Your task to perform on an android device: clear all cookies in the chrome app Image 0: 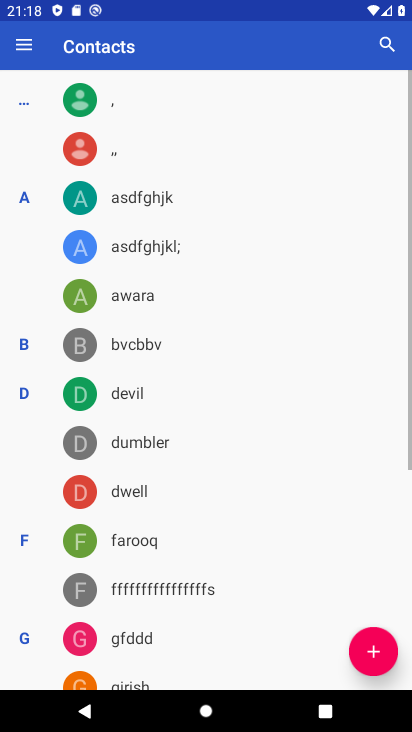
Step 0: press home button
Your task to perform on an android device: clear all cookies in the chrome app Image 1: 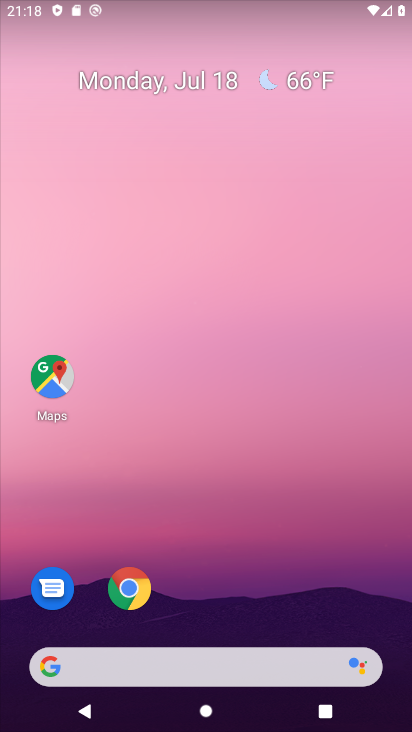
Step 1: click (125, 585)
Your task to perform on an android device: clear all cookies in the chrome app Image 2: 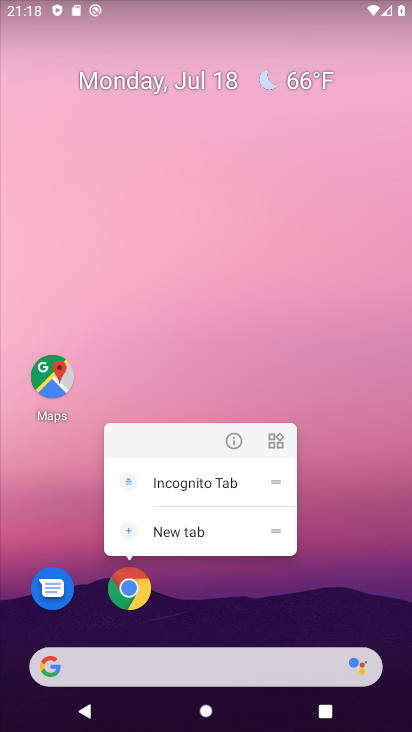
Step 2: click (134, 588)
Your task to perform on an android device: clear all cookies in the chrome app Image 3: 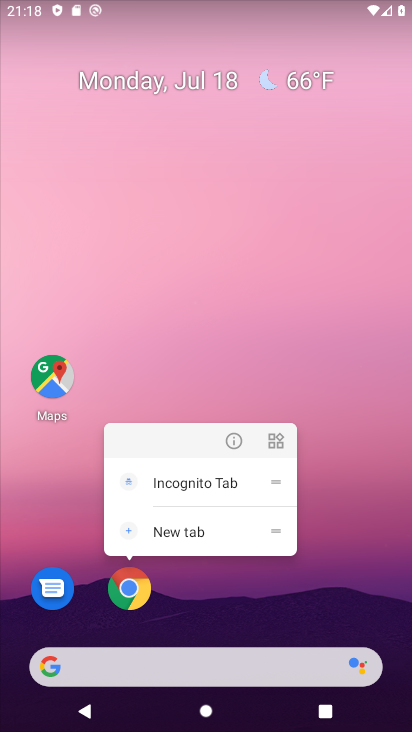
Step 3: click (134, 586)
Your task to perform on an android device: clear all cookies in the chrome app Image 4: 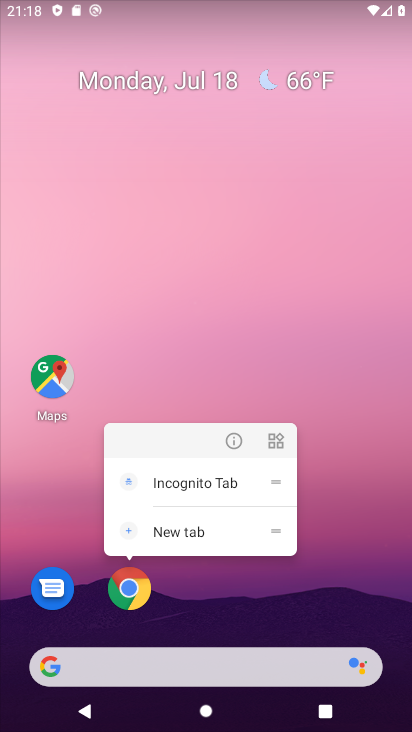
Step 4: click (144, 597)
Your task to perform on an android device: clear all cookies in the chrome app Image 5: 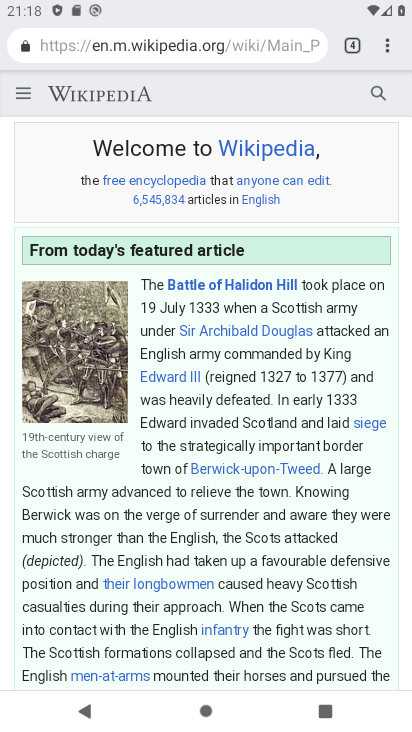
Step 5: drag from (386, 48) to (284, 551)
Your task to perform on an android device: clear all cookies in the chrome app Image 6: 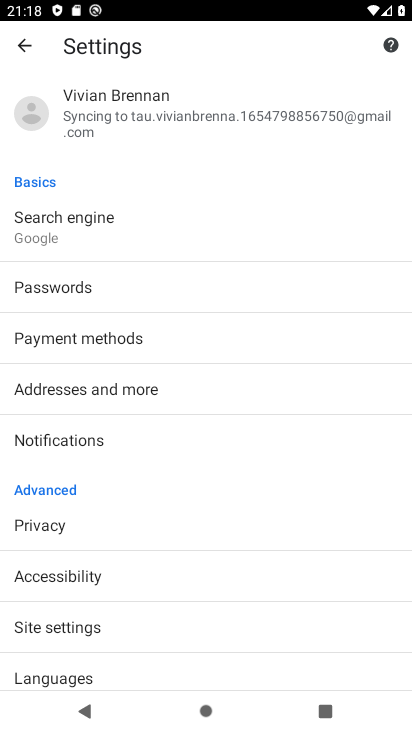
Step 6: click (46, 516)
Your task to perform on an android device: clear all cookies in the chrome app Image 7: 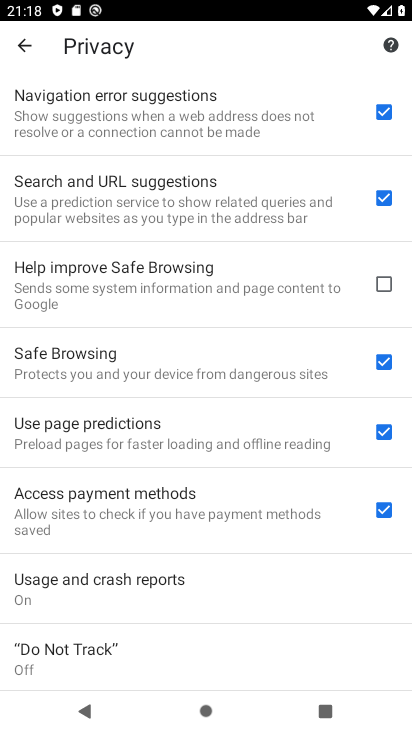
Step 7: drag from (201, 586) to (274, 242)
Your task to perform on an android device: clear all cookies in the chrome app Image 8: 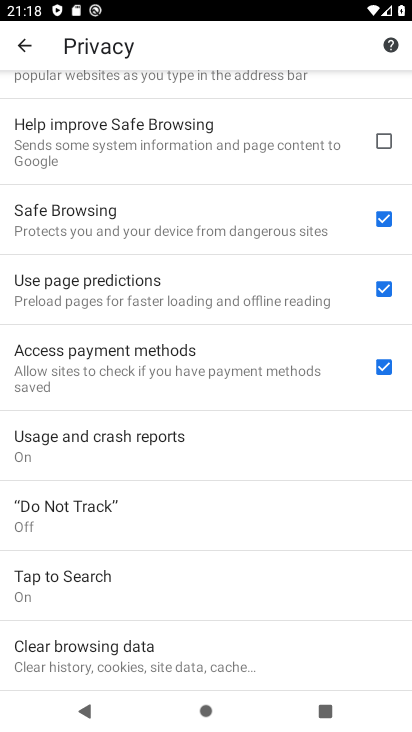
Step 8: drag from (229, 627) to (272, 178)
Your task to perform on an android device: clear all cookies in the chrome app Image 9: 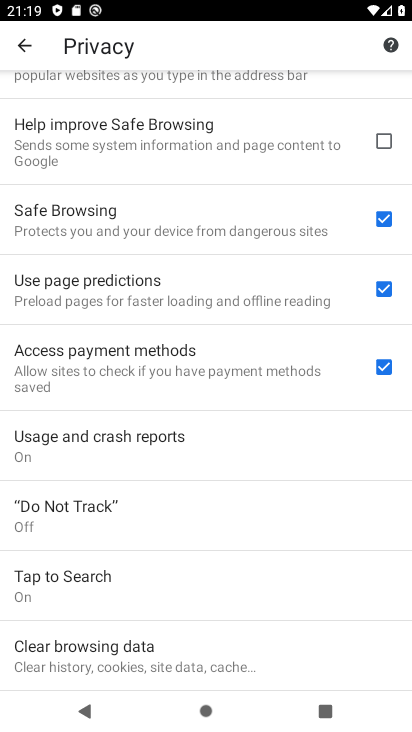
Step 9: click (161, 655)
Your task to perform on an android device: clear all cookies in the chrome app Image 10: 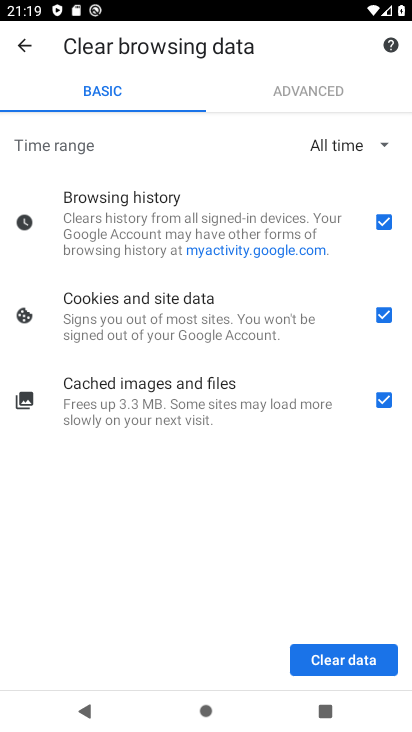
Step 10: click (383, 400)
Your task to perform on an android device: clear all cookies in the chrome app Image 11: 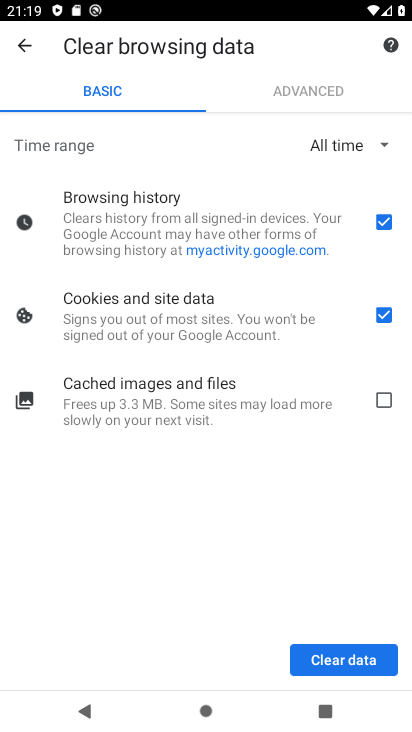
Step 11: click (388, 219)
Your task to perform on an android device: clear all cookies in the chrome app Image 12: 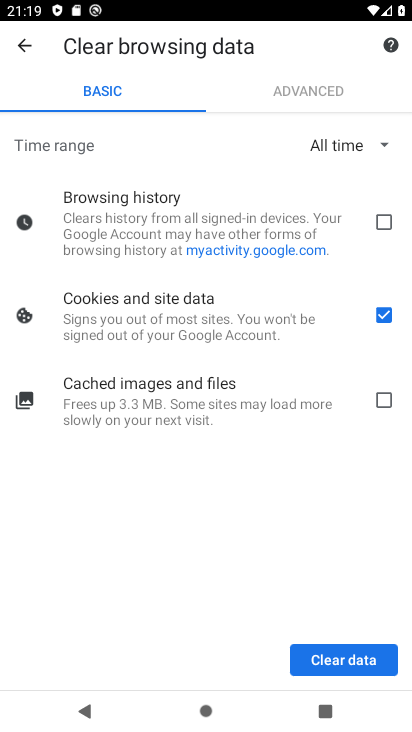
Step 12: click (354, 658)
Your task to perform on an android device: clear all cookies in the chrome app Image 13: 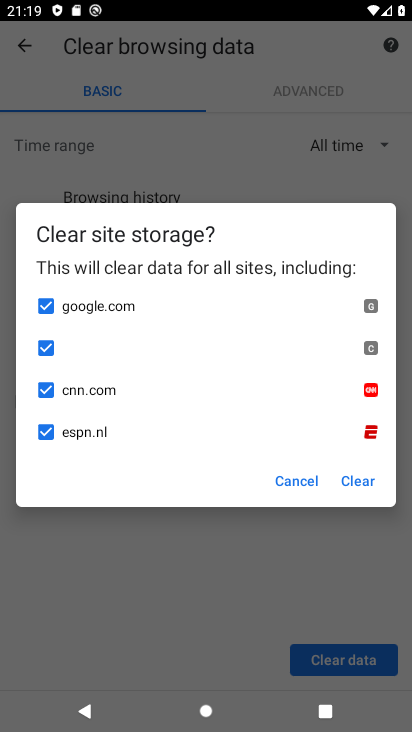
Step 13: click (359, 478)
Your task to perform on an android device: clear all cookies in the chrome app Image 14: 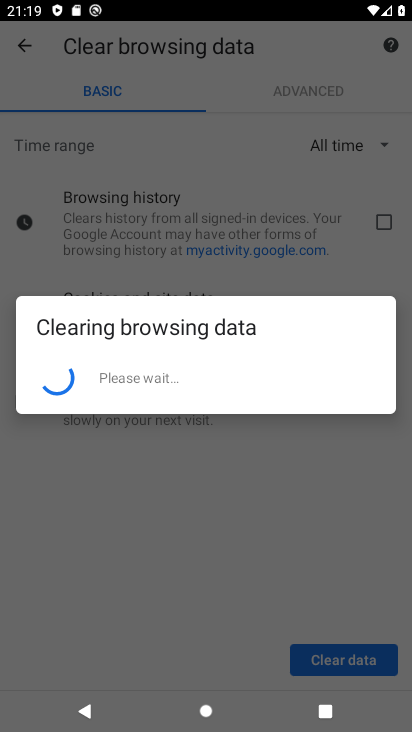
Step 14: click (150, 362)
Your task to perform on an android device: clear all cookies in the chrome app Image 15: 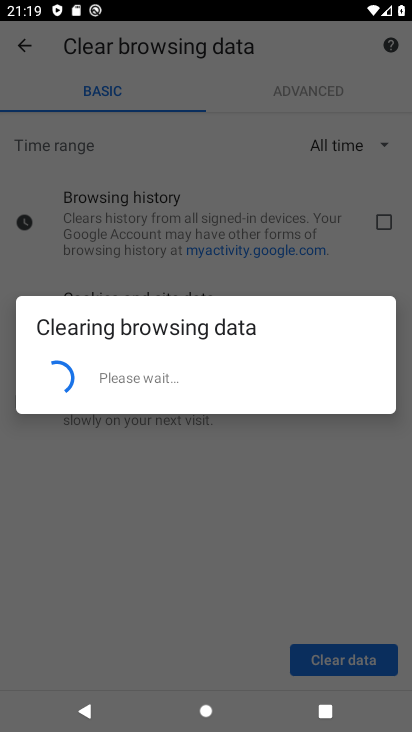
Step 15: press back button
Your task to perform on an android device: clear all cookies in the chrome app Image 16: 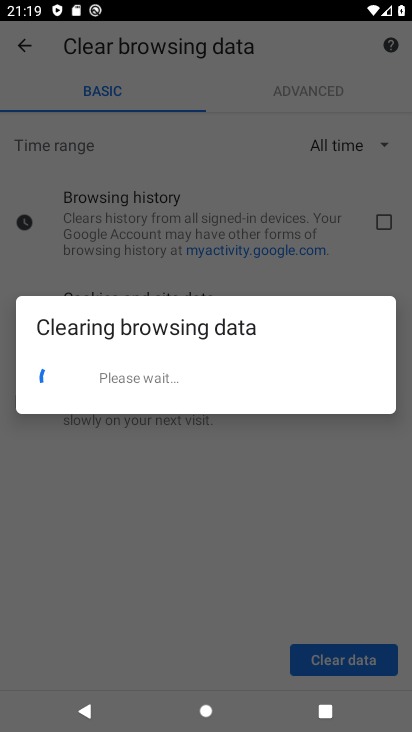
Step 16: click (339, 659)
Your task to perform on an android device: clear all cookies in the chrome app Image 17: 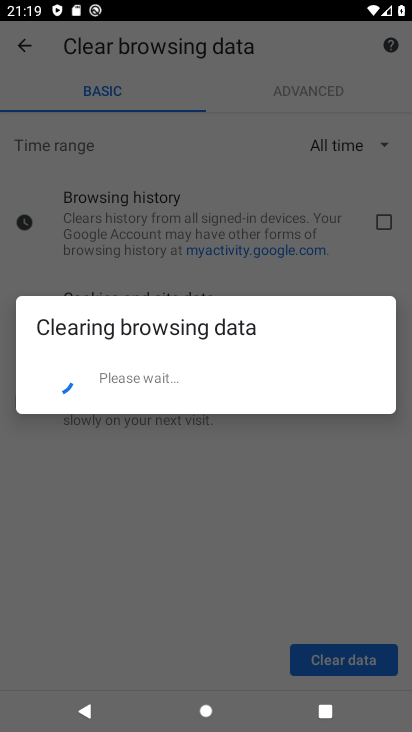
Step 17: task complete